Your task to perform on an android device: create a new album in the google photos Image 0: 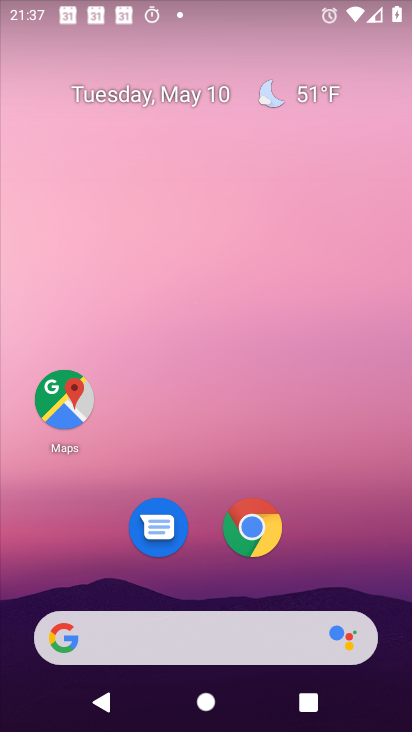
Step 0: drag from (186, 597) to (152, 8)
Your task to perform on an android device: create a new album in the google photos Image 1: 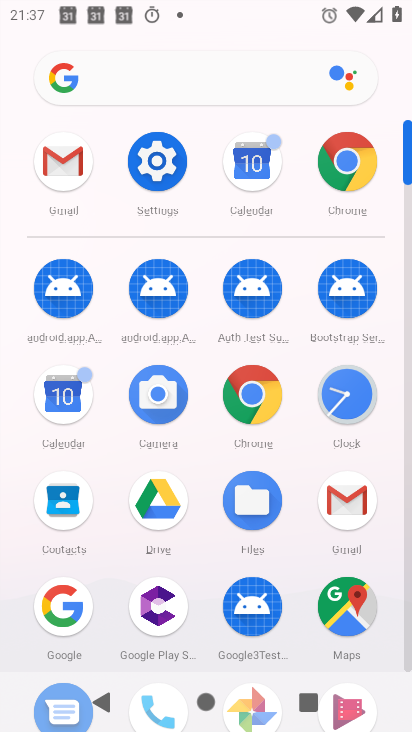
Step 1: drag from (197, 664) to (133, 166)
Your task to perform on an android device: create a new album in the google photos Image 2: 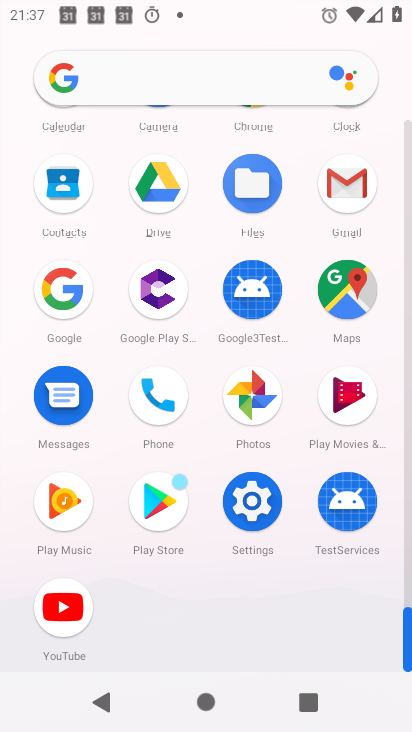
Step 2: click (260, 409)
Your task to perform on an android device: create a new album in the google photos Image 3: 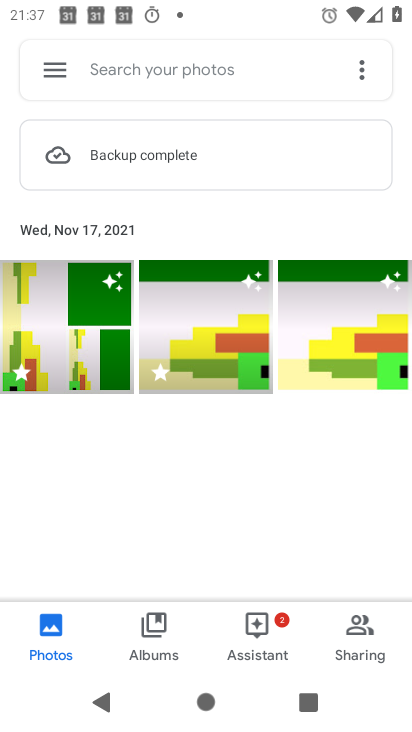
Step 3: click (82, 344)
Your task to perform on an android device: create a new album in the google photos Image 4: 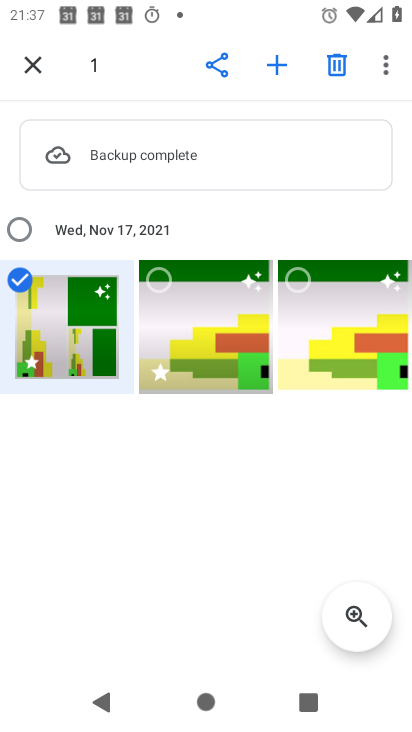
Step 4: click (163, 329)
Your task to perform on an android device: create a new album in the google photos Image 5: 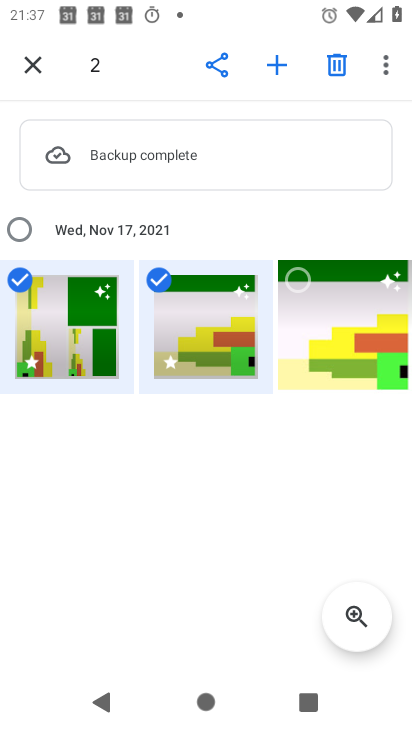
Step 5: click (270, 60)
Your task to perform on an android device: create a new album in the google photos Image 6: 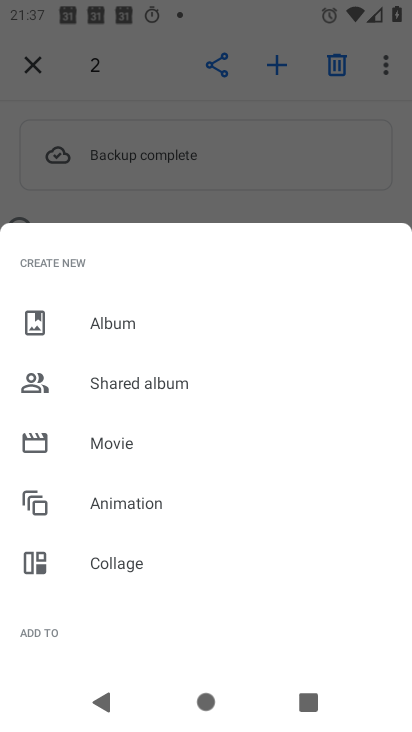
Step 6: click (119, 322)
Your task to perform on an android device: create a new album in the google photos Image 7: 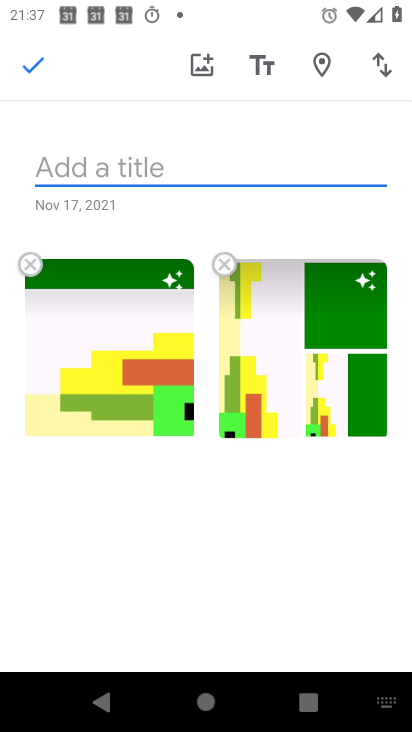
Step 7: type "bull"
Your task to perform on an android device: create a new album in the google photos Image 8: 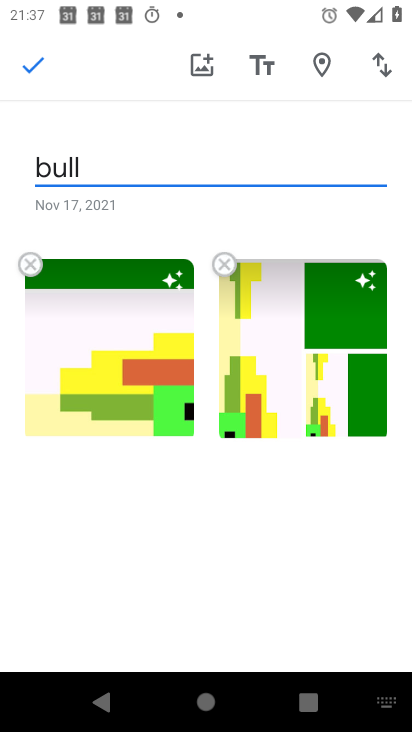
Step 8: click (35, 67)
Your task to perform on an android device: create a new album in the google photos Image 9: 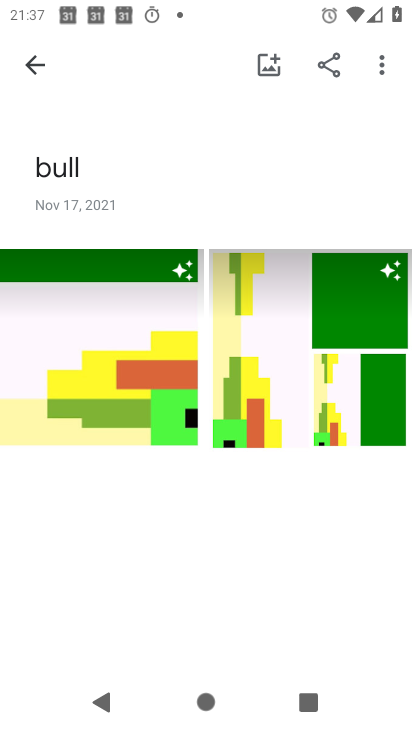
Step 9: task complete